Your task to perform on an android device: Open eBay Image 0: 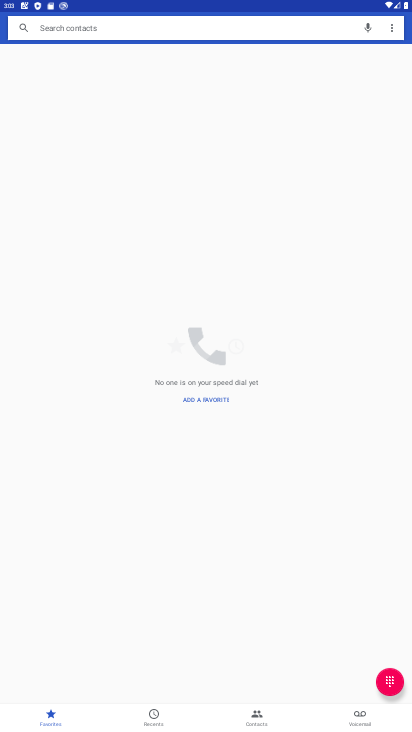
Step 0: press home button
Your task to perform on an android device: Open eBay Image 1: 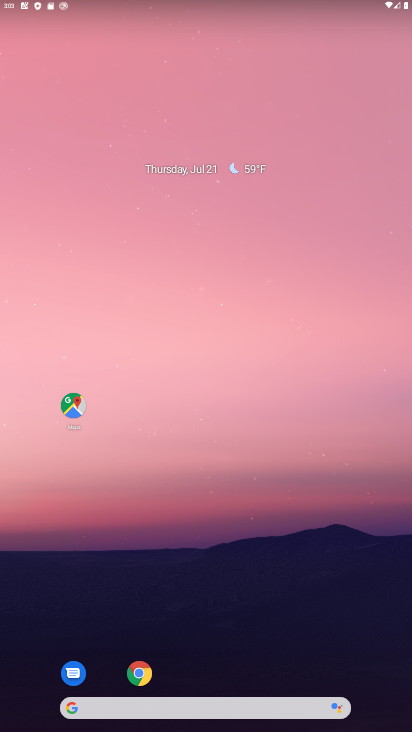
Step 1: click (136, 675)
Your task to perform on an android device: Open eBay Image 2: 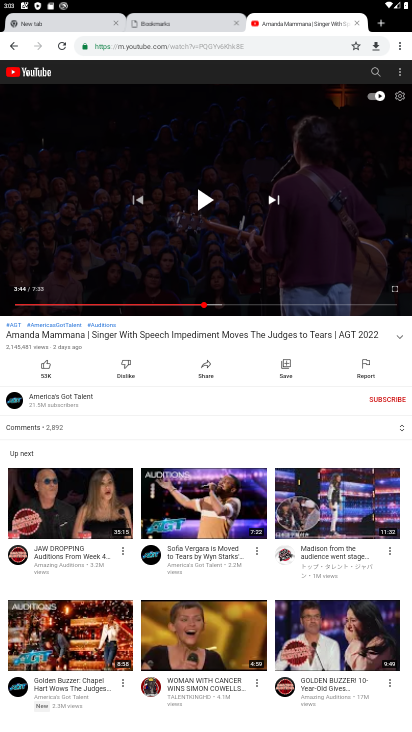
Step 2: click (196, 44)
Your task to perform on an android device: Open eBay Image 3: 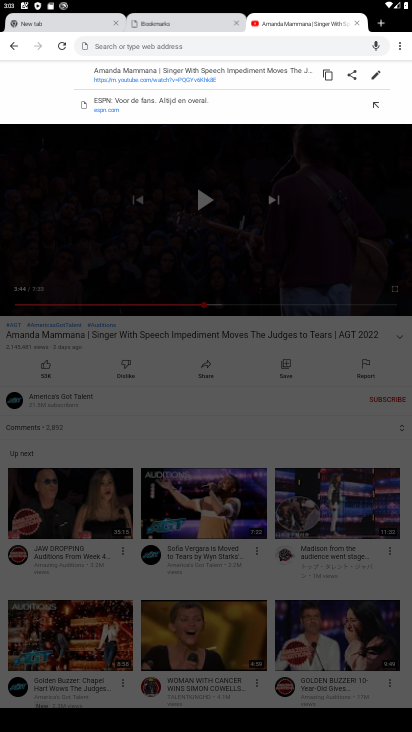
Step 3: type "eBay"
Your task to perform on an android device: Open eBay Image 4: 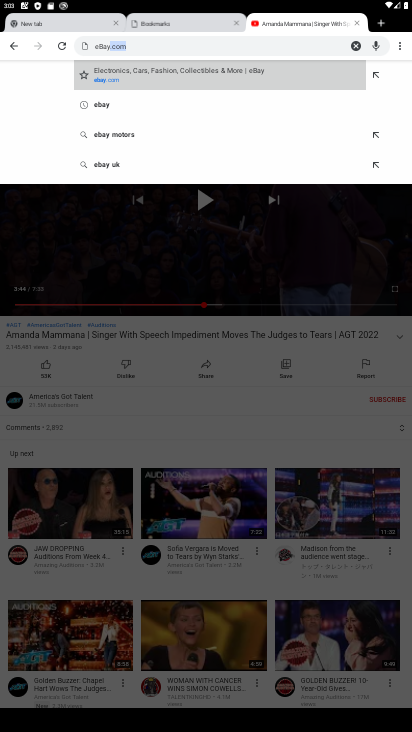
Step 4: click (106, 69)
Your task to perform on an android device: Open eBay Image 5: 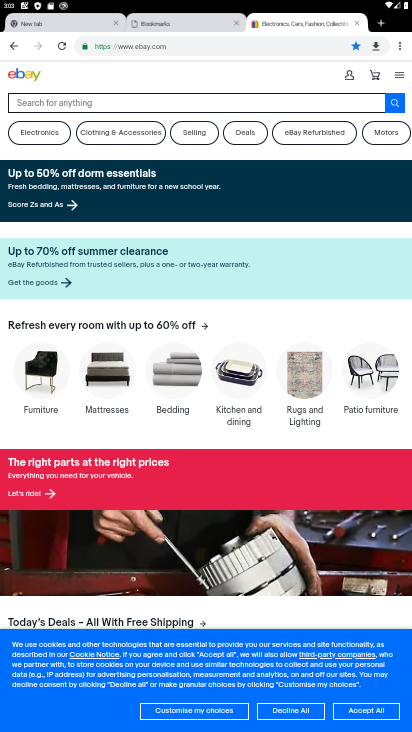
Step 5: task complete